Your task to perform on an android device: Clear the shopping cart on target.com. Add "bose soundsport free" to the cart on target.com Image 0: 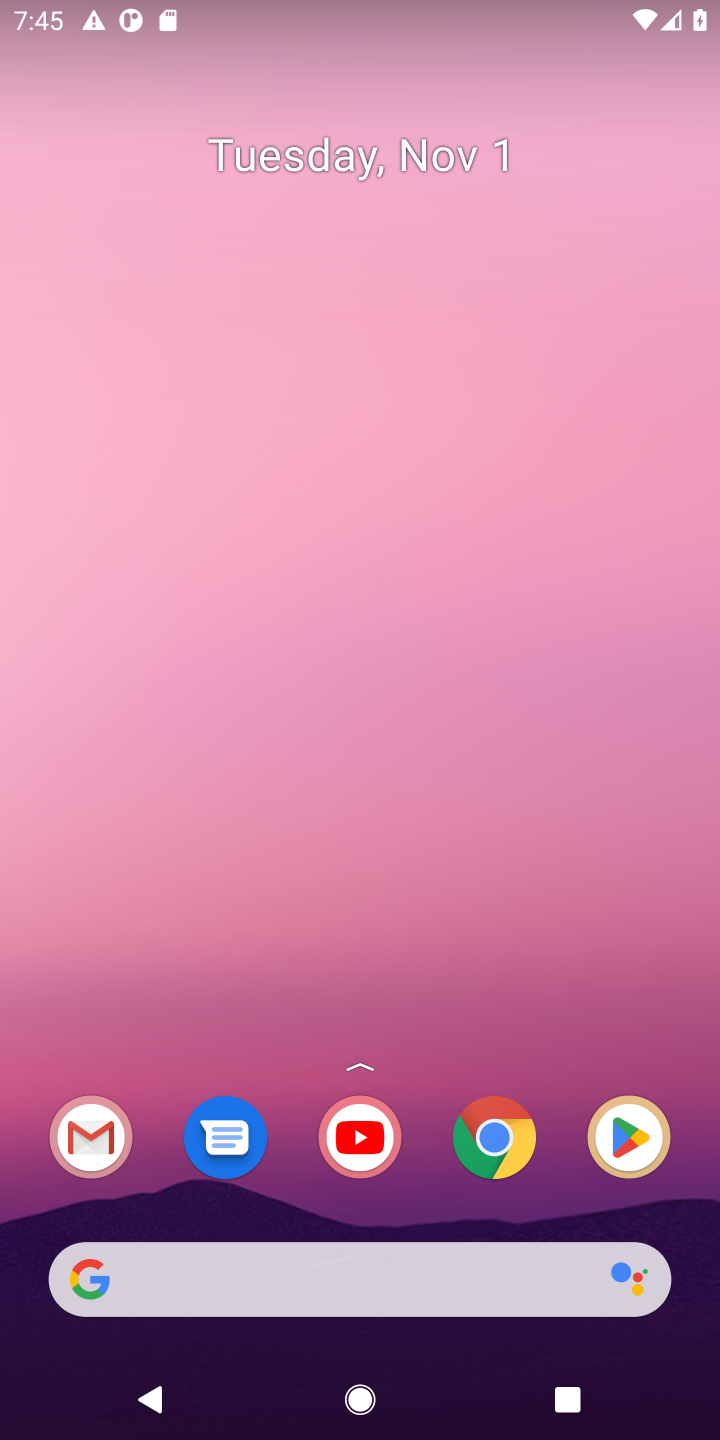
Step 0: click (487, 1147)
Your task to perform on an android device: Clear the shopping cart on target.com. Add "bose soundsport free" to the cart on target.com Image 1: 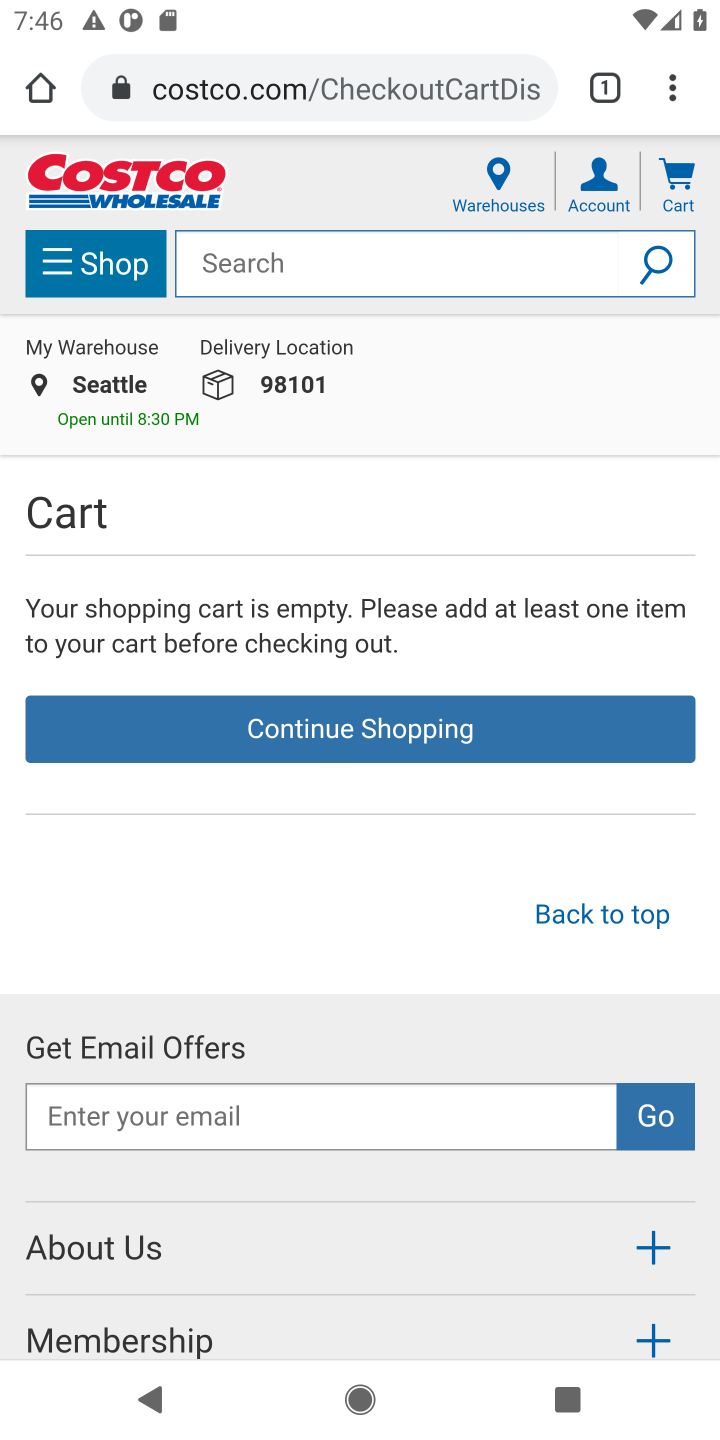
Step 1: click (401, 81)
Your task to perform on an android device: Clear the shopping cart on target.com. Add "bose soundsport free" to the cart on target.com Image 2: 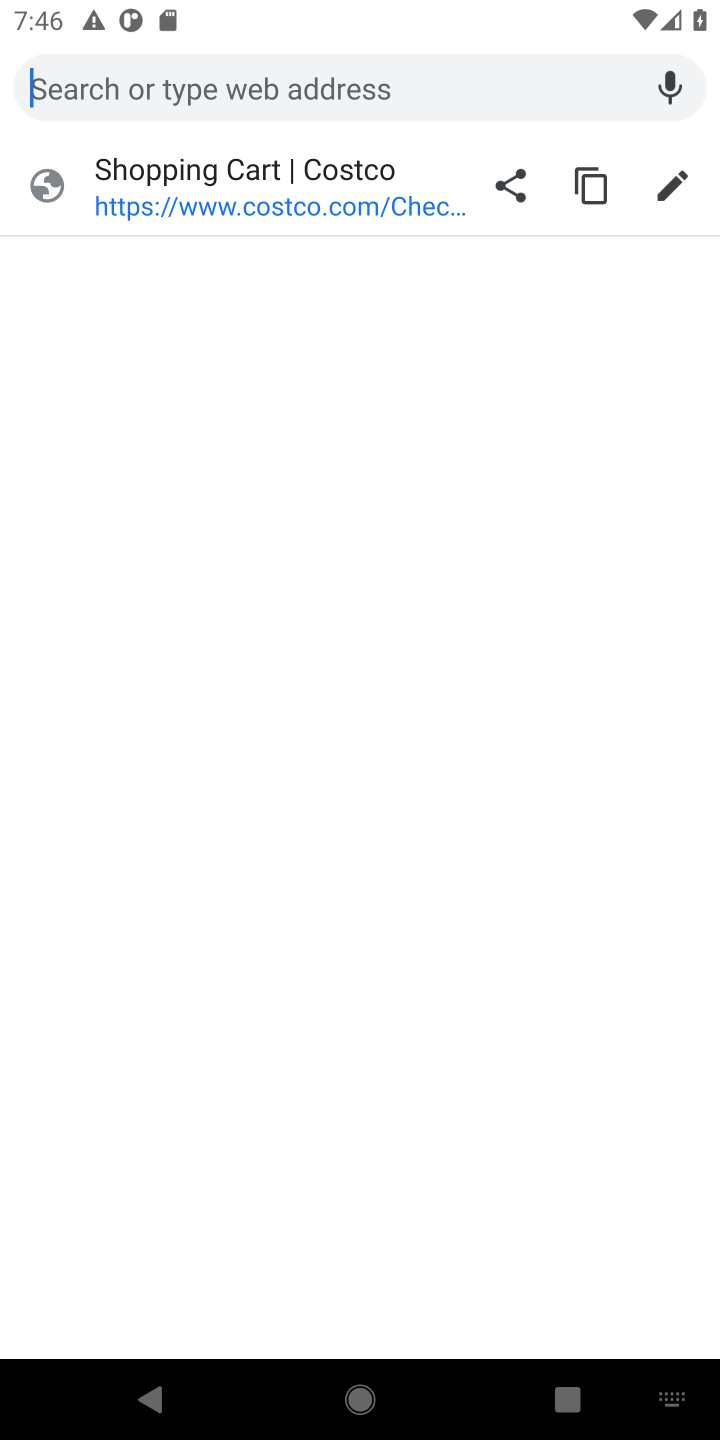
Step 2: type "target.com"
Your task to perform on an android device: Clear the shopping cart on target.com. Add "bose soundsport free" to the cart on target.com Image 3: 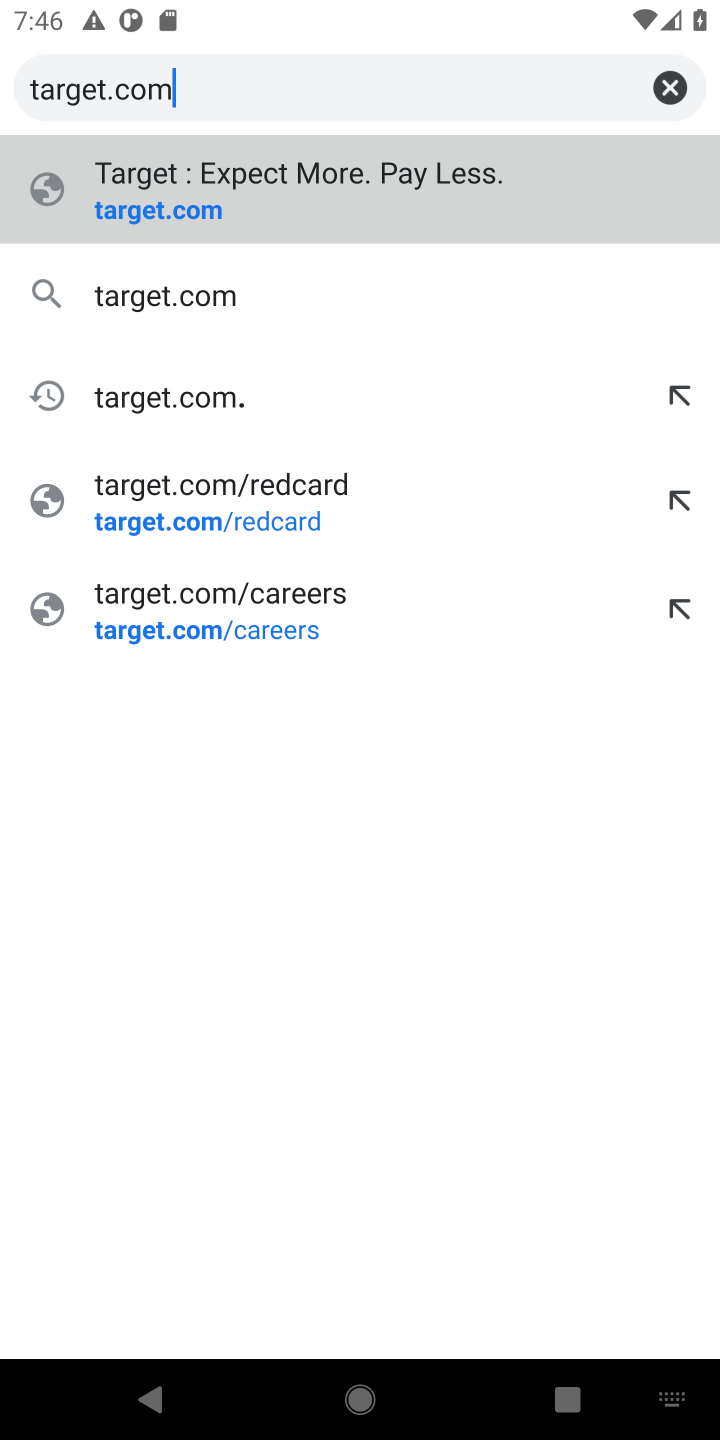
Step 3: click (445, 163)
Your task to perform on an android device: Clear the shopping cart on target.com. Add "bose soundsport free" to the cart on target.com Image 4: 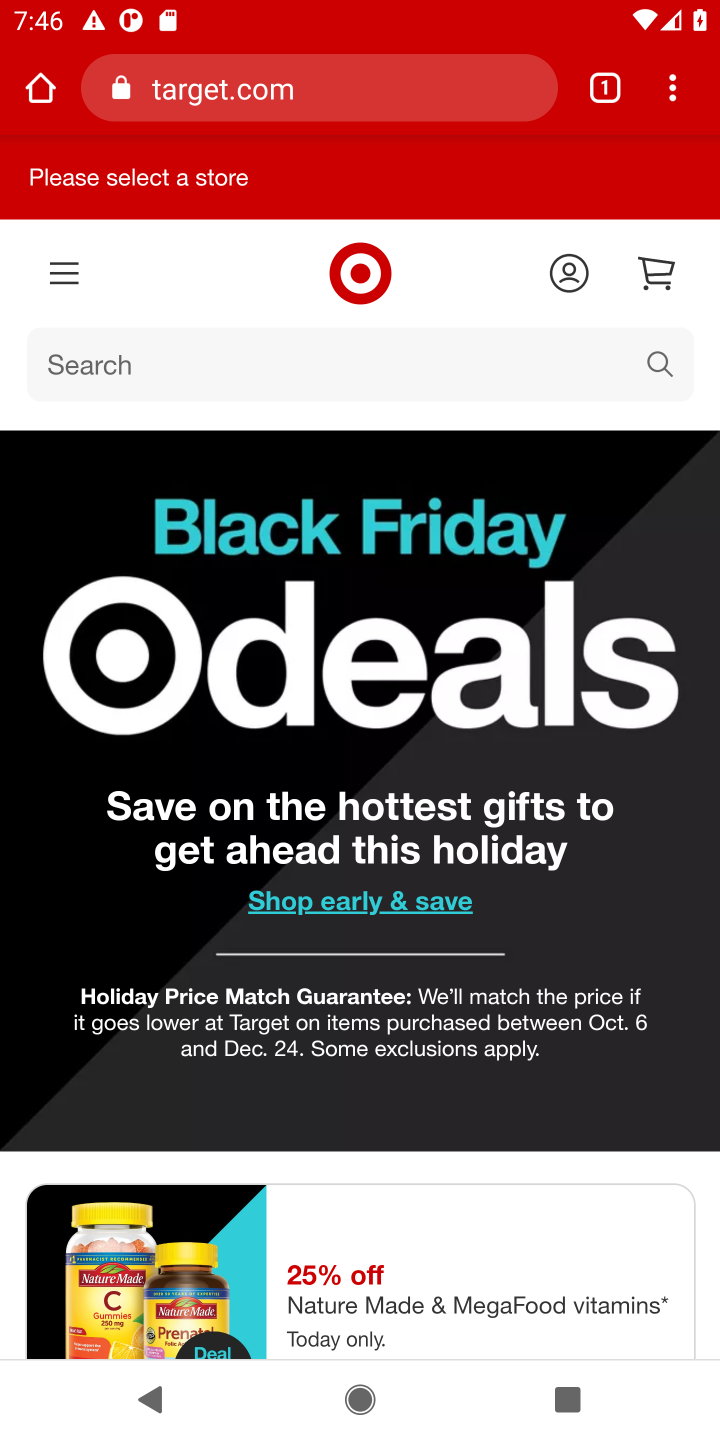
Step 4: click (251, 363)
Your task to perform on an android device: Clear the shopping cart on target.com. Add "bose soundsport free" to the cart on target.com Image 5: 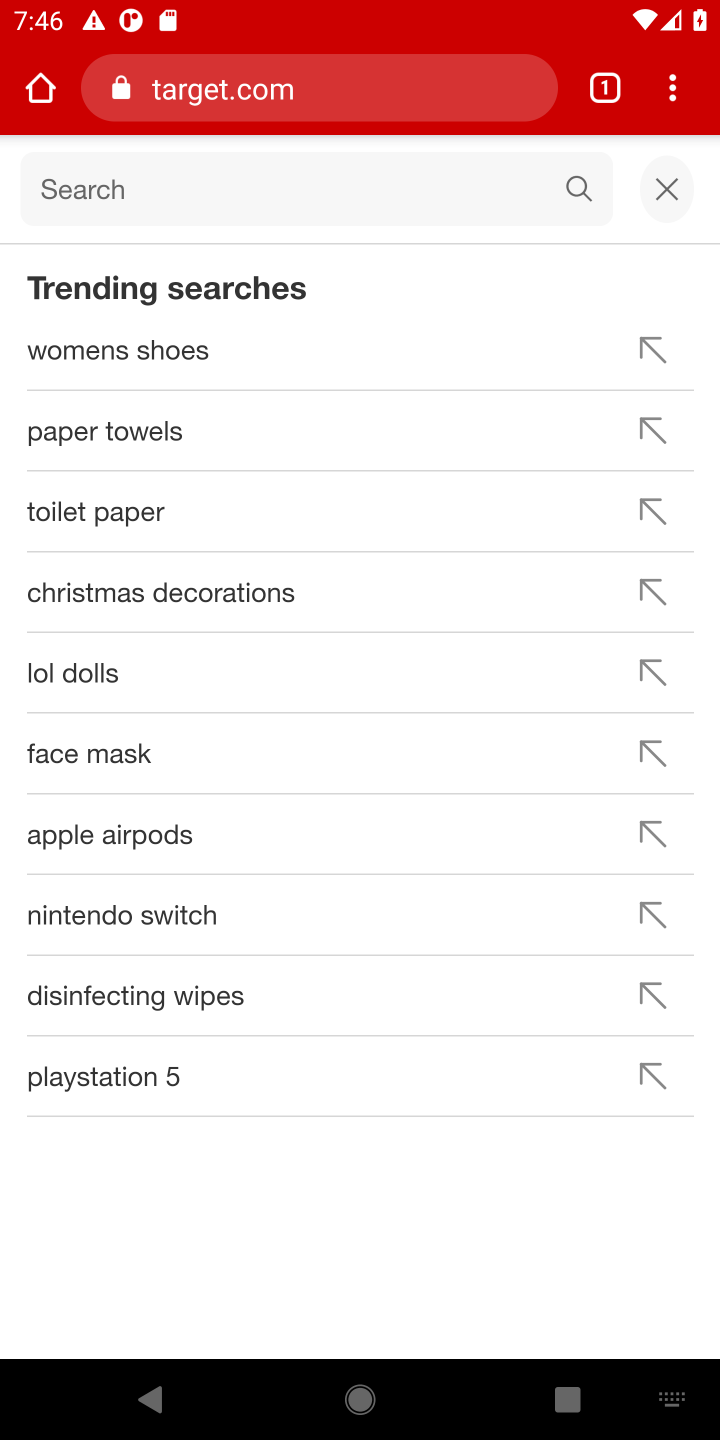
Step 5: type "bose soundsport free"
Your task to perform on an android device: Clear the shopping cart on target.com. Add "bose soundsport free" to the cart on target.com Image 6: 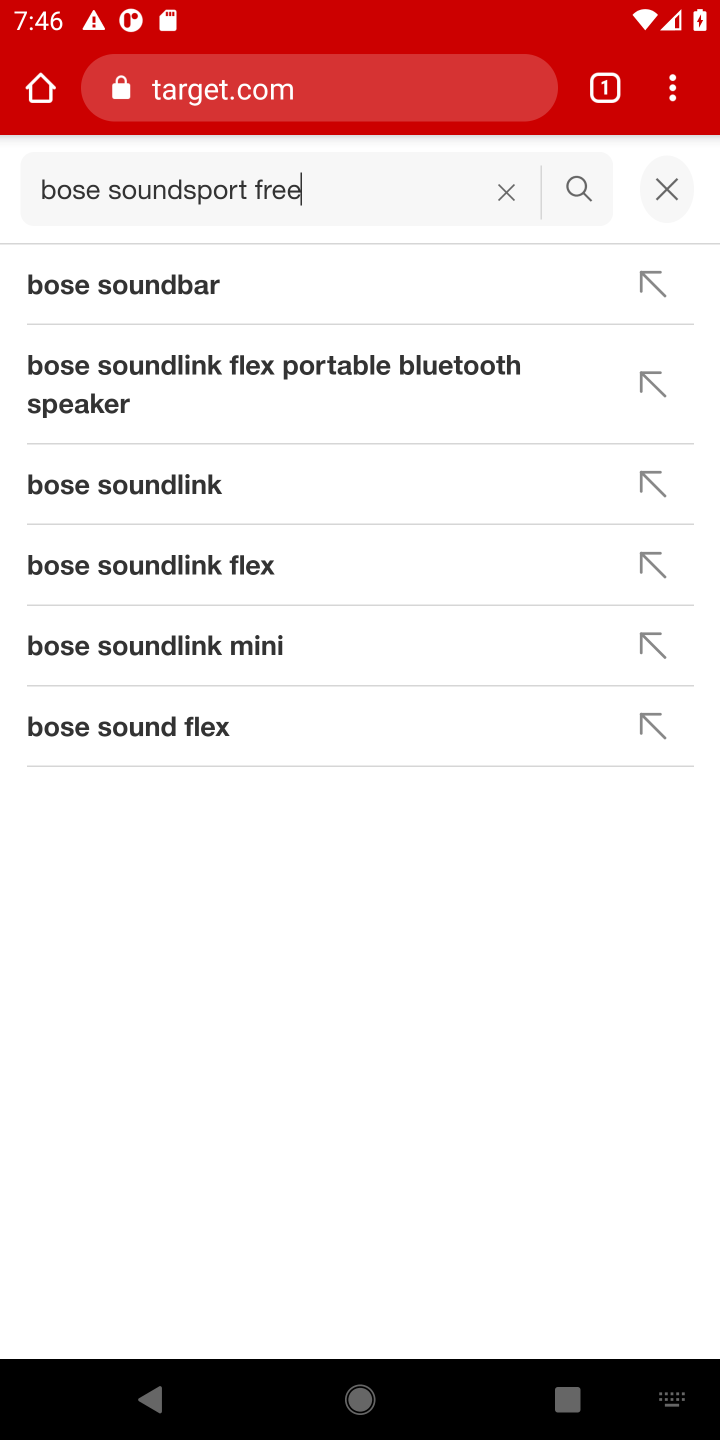
Step 6: press enter
Your task to perform on an android device: Clear the shopping cart on target.com. Add "bose soundsport free" to the cart on target.com Image 7: 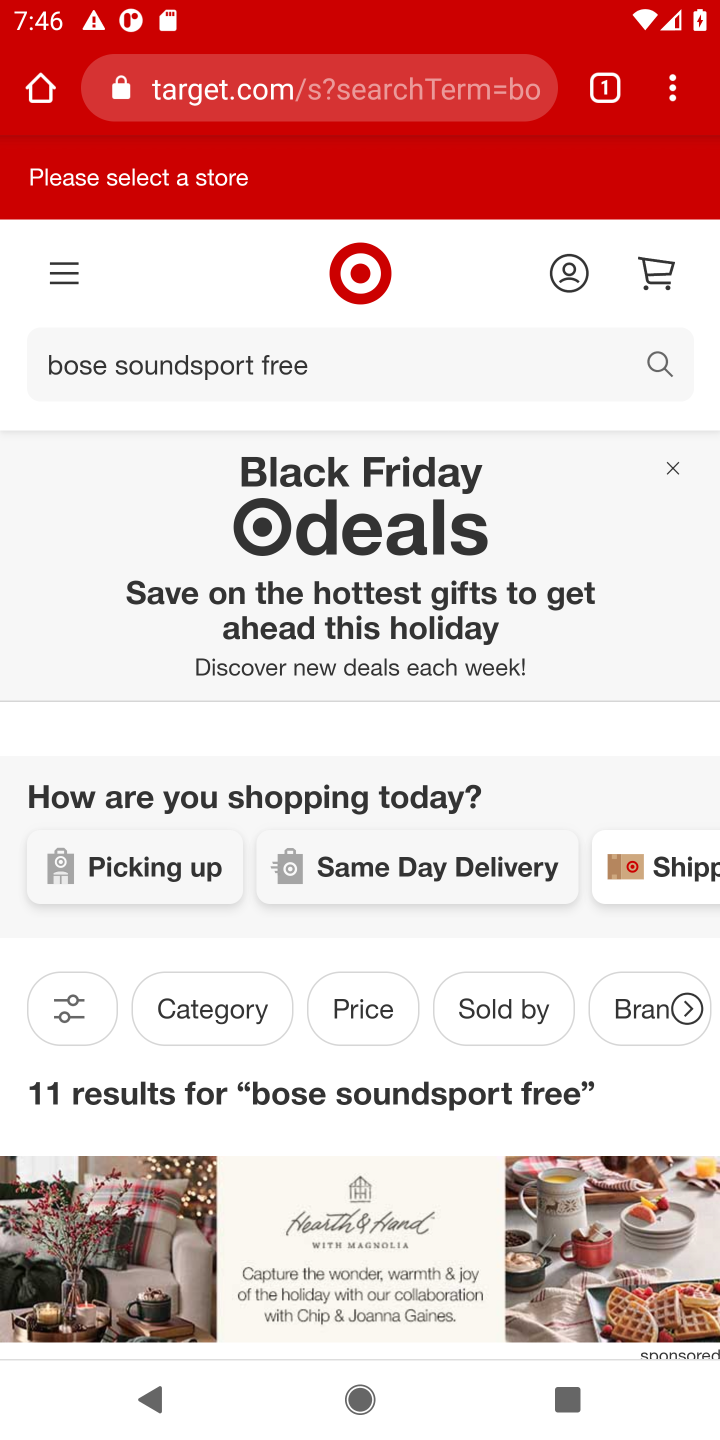
Step 7: drag from (387, 1118) to (384, 536)
Your task to perform on an android device: Clear the shopping cart on target.com. Add "bose soundsport free" to the cart on target.com Image 8: 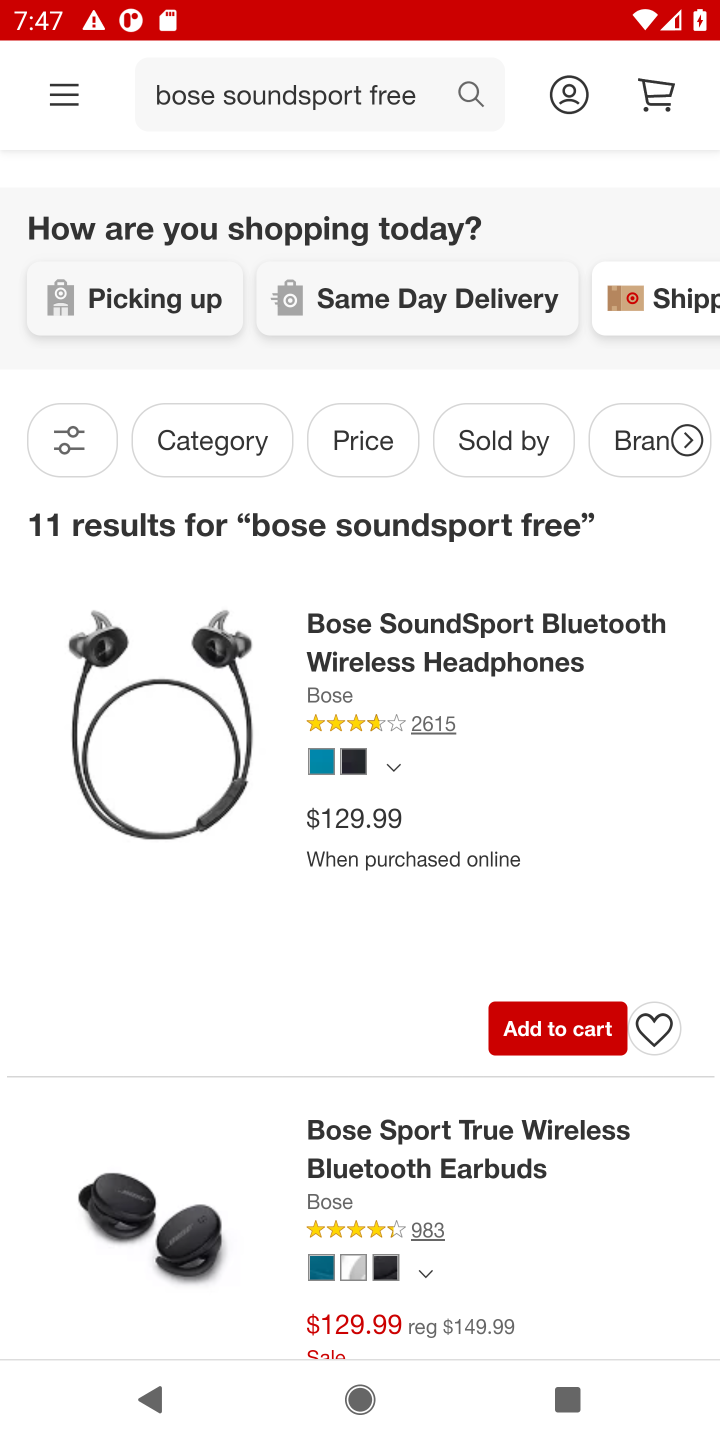
Step 8: click (553, 1047)
Your task to perform on an android device: Clear the shopping cart on target.com. Add "bose soundsport free" to the cart on target.com Image 9: 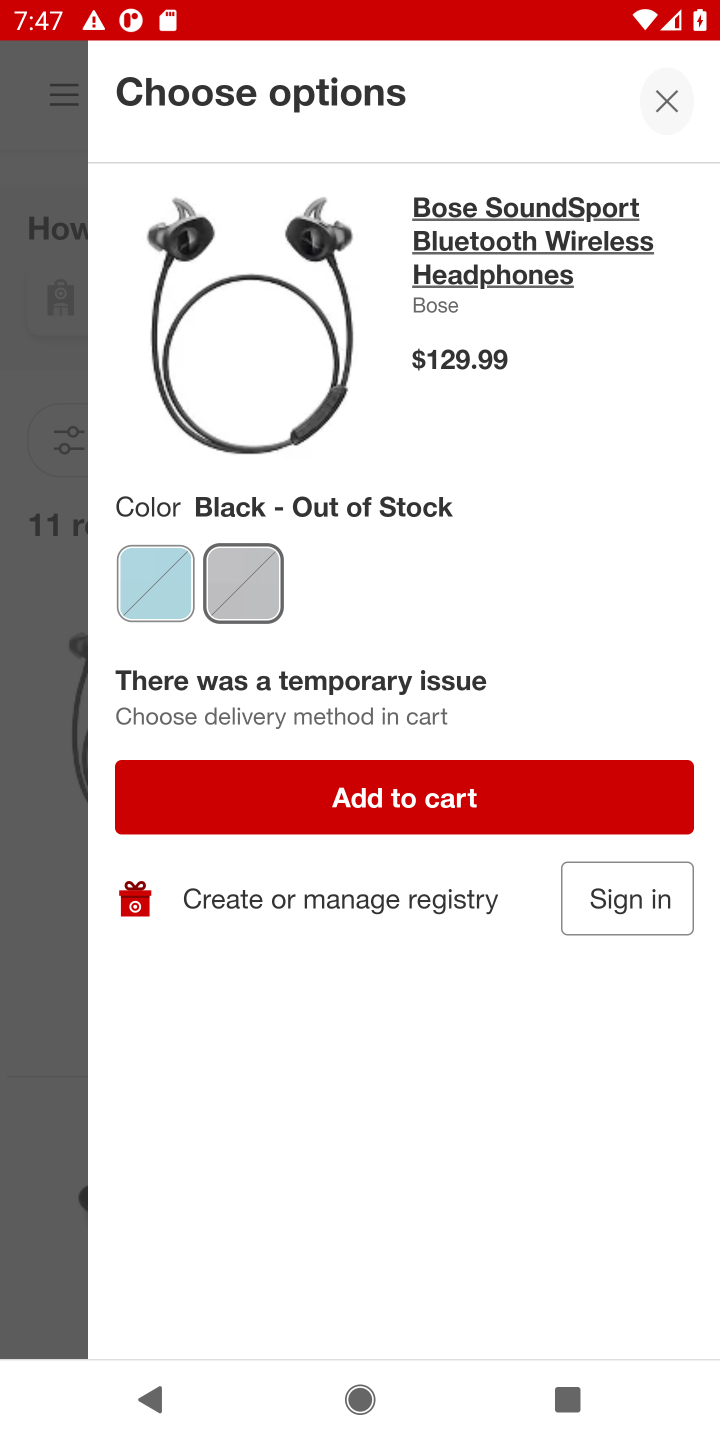
Step 9: click (512, 804)
Your task to perform on an android device: Clear the shopping cart on target.com. Add "bose soundsport free" to the cart on target.com Image 10: 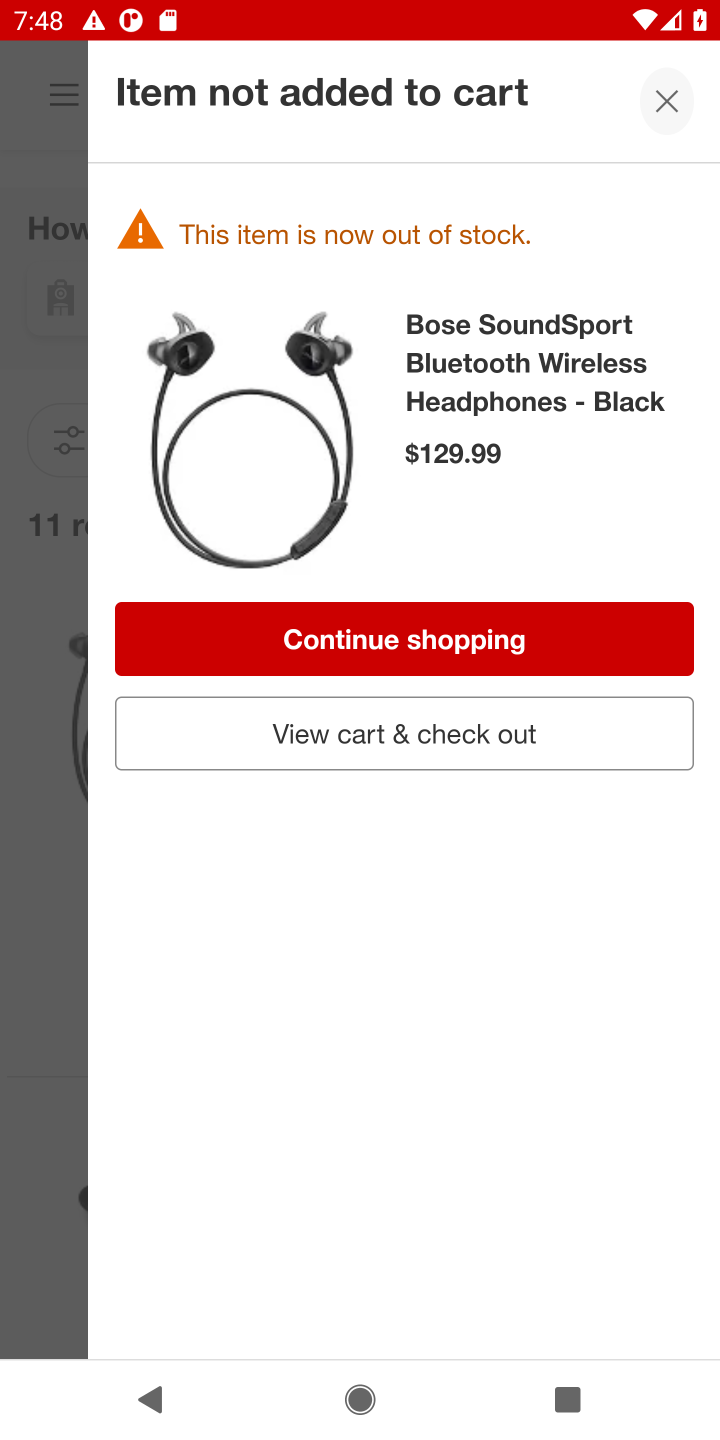
Step 10: task complete